Your task to perform on an android device: turn off location history Image 0: 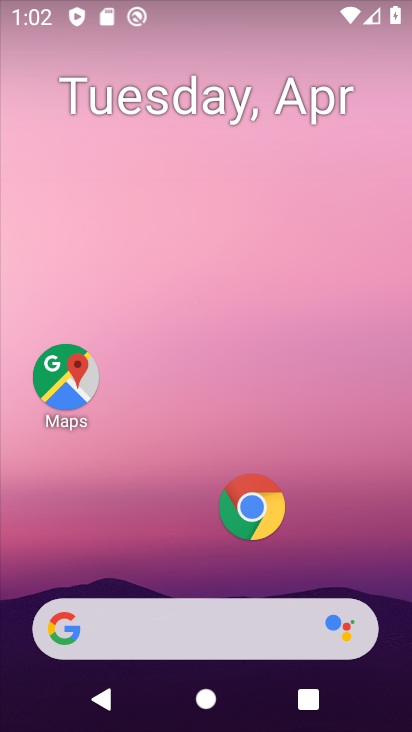
Step 0: drag from (186, 492) to (233, 43)
Your task to perform on an android device: turn off location history Image 1: 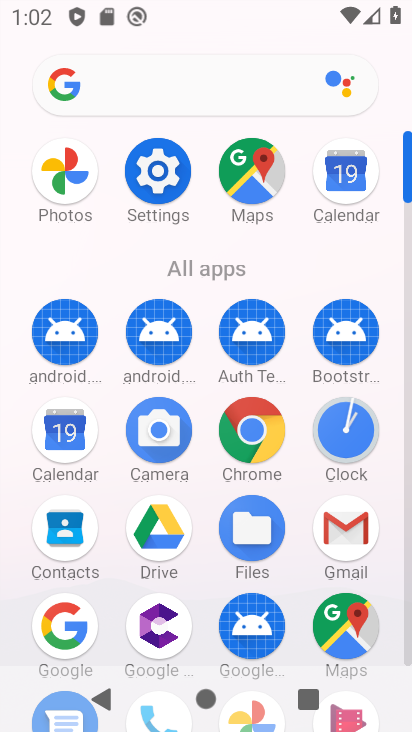
Step 1: click (154, 186)
Your task to perform on an android device: turn off location history Image 2: 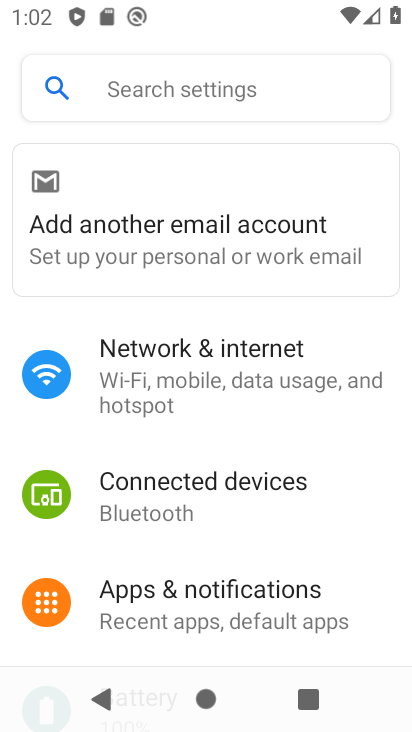
Step 2: drag from (186, 514) to (242, 211)
Your task to perform on an android device: turn off location history Image 3: 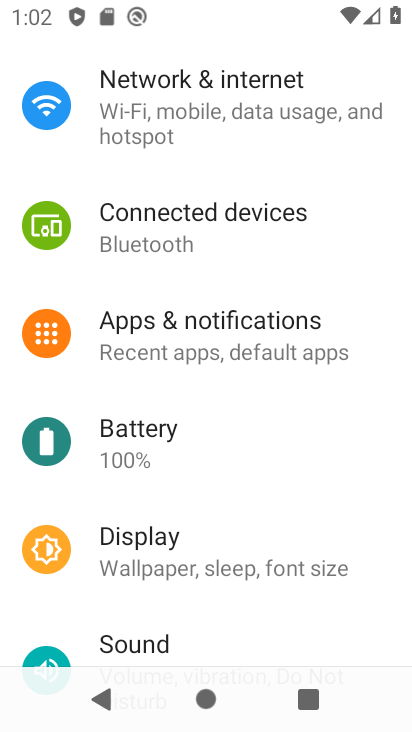
Step 3: drag from (205, 580) to (234, 236)
Your task to perform on an android device: turn off location history Image 4: 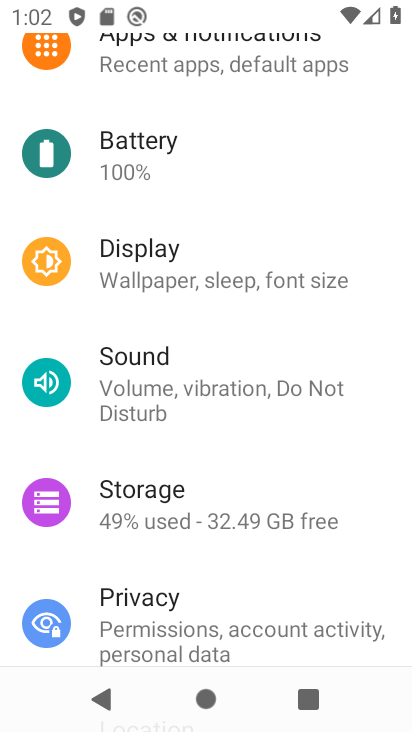
Step 4: drag from (191, 567) to (222, 304)
Your task to perform on an android device: turn off location history Image 5: 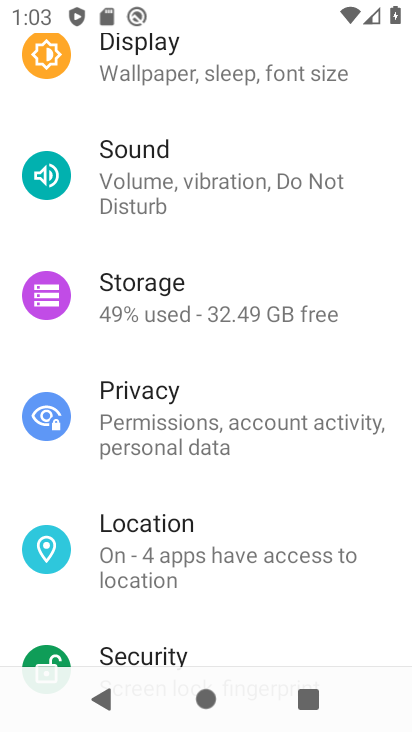
Step 5: click (197, 541)
Your task to perform on an android device: turn off location history Image 6: 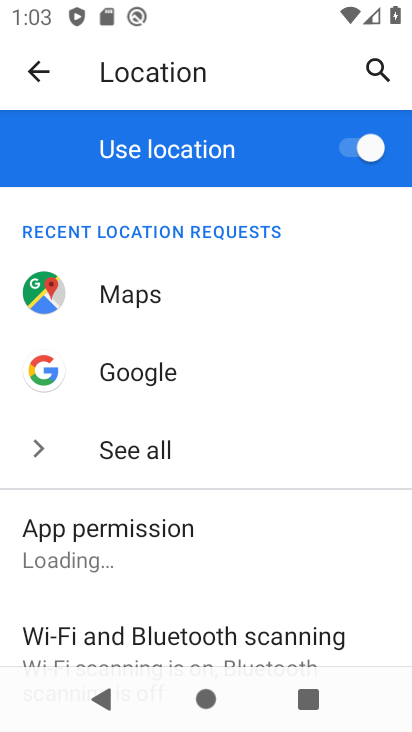
Step 6: drag from (225, 561) to (245, 238)
Your task to perform on an android device: turn off location history Image 7: 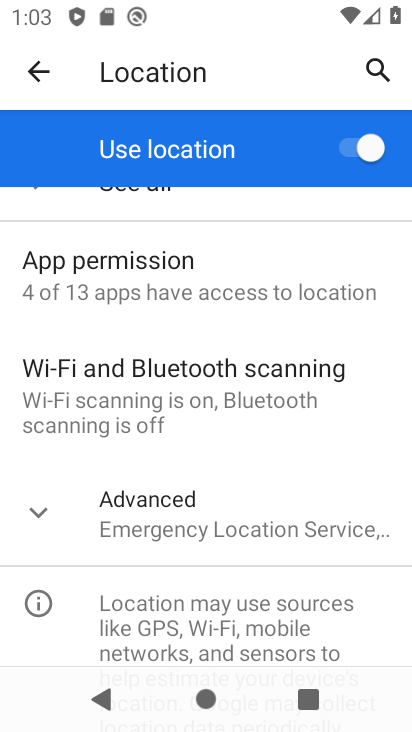
Step 7: click (351, 150)
Your task to perform on an android device: turn off location history Image 8: 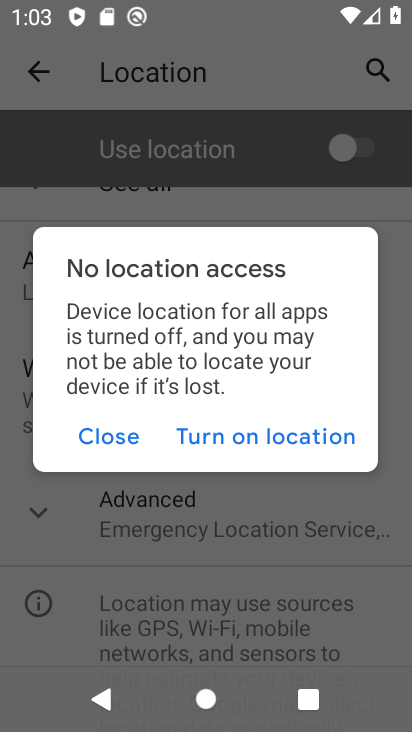
Step 8: click (120, 429)
Your task to perform on an android device: turn off location history Image 9: 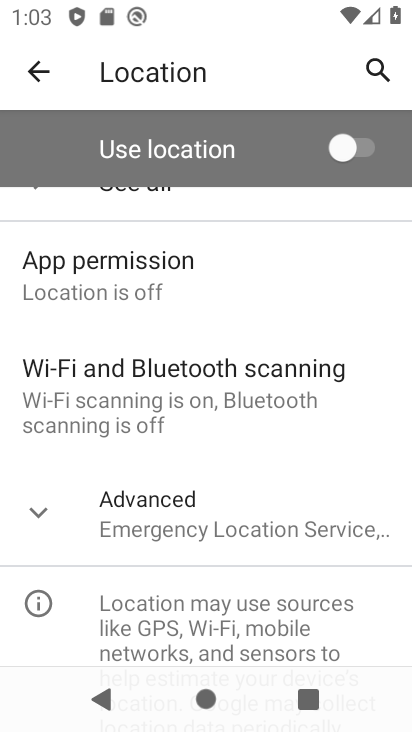
Step 9: task complete